Your task to perform on an android device: turn on priority inbox in the gmail app Image 0: 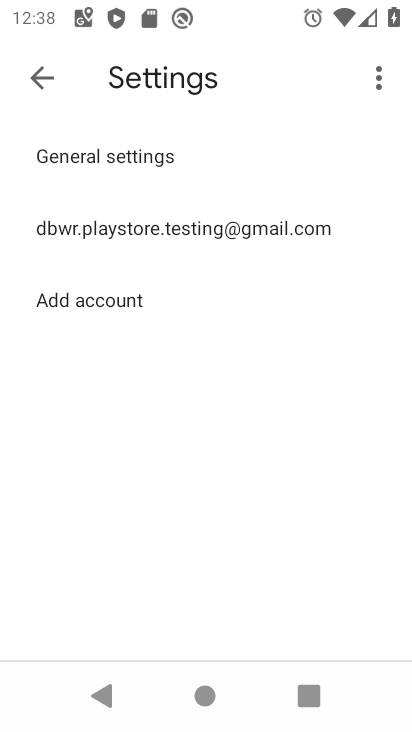
Step 0: click (303, 235)
Your task to perform on an android device: turn on priority inbox in the gmail app Image 1: 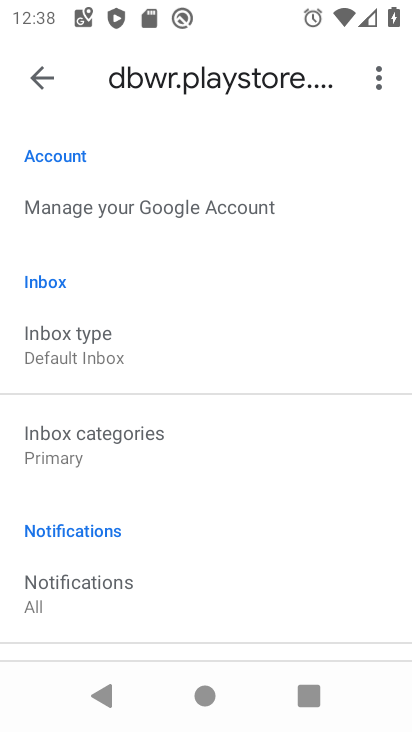
Step 1: click (176, 361)
Your task to perform on an android device: turn on priority inbox in the gmail app Image 2: 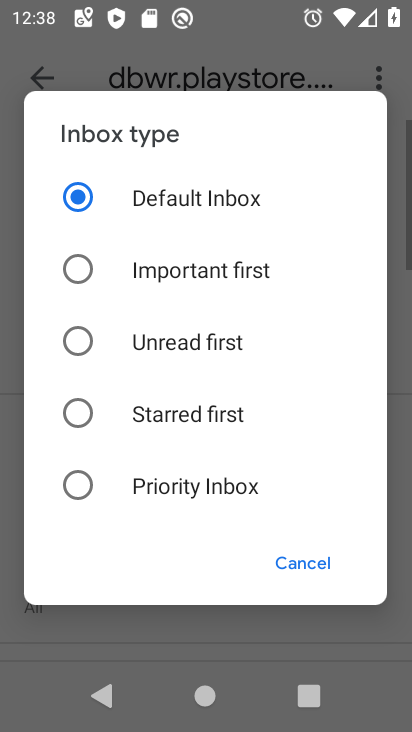
Step 2: click (173, 482)
Your task to perform on an android device: turn on priority inbox in the gmail app Image 3: 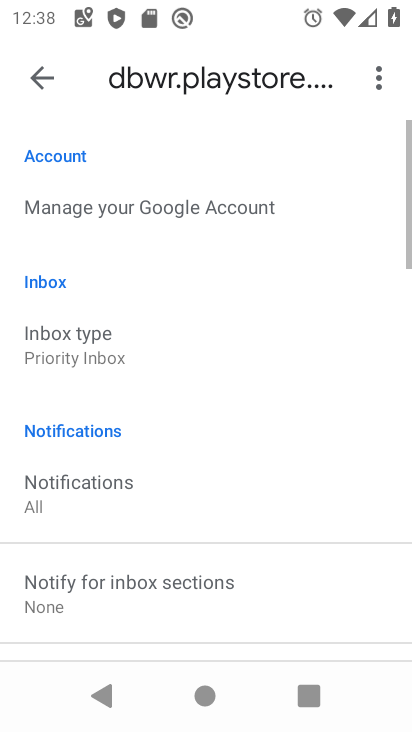
Step 3: task complete